Your task to perform on an android device: toggle show notifications on the lock screen Image 0: 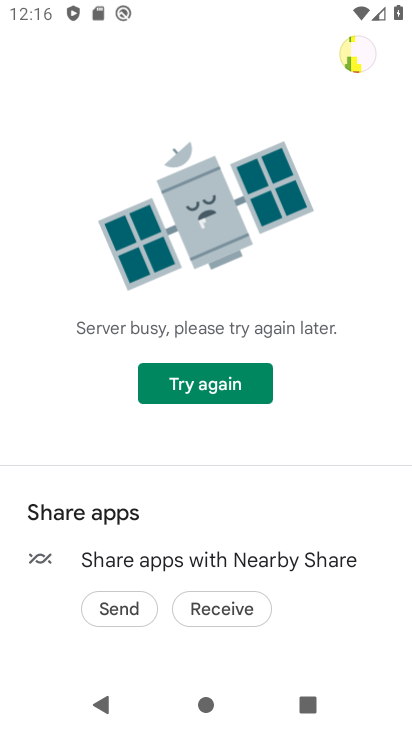
Step 0: press home button
Your task to perform on an android device: toggle show notifications on the lock screen Image 1: 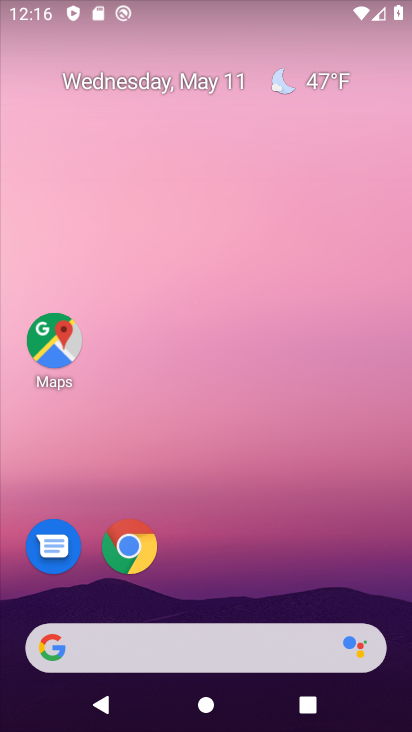
Step 1: drag from (211, 498) to (248, 94)
Your task to perform on an android device: toggle show notifications on the lock screen Image 2: 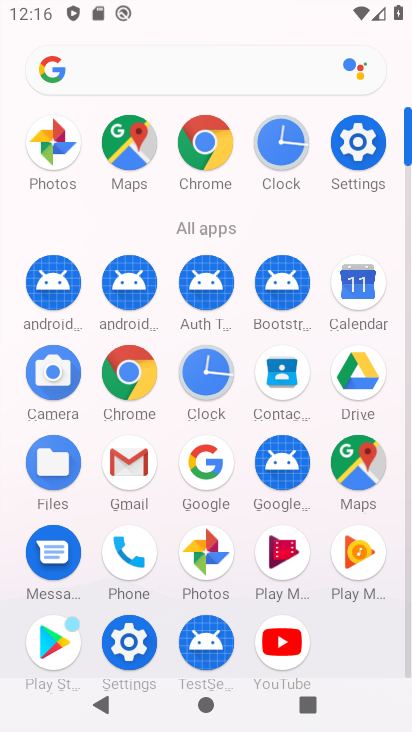
Step 2: click (354, 154)
Your task to perform on an android device: toggle show notifications on the lock screen Image 3: 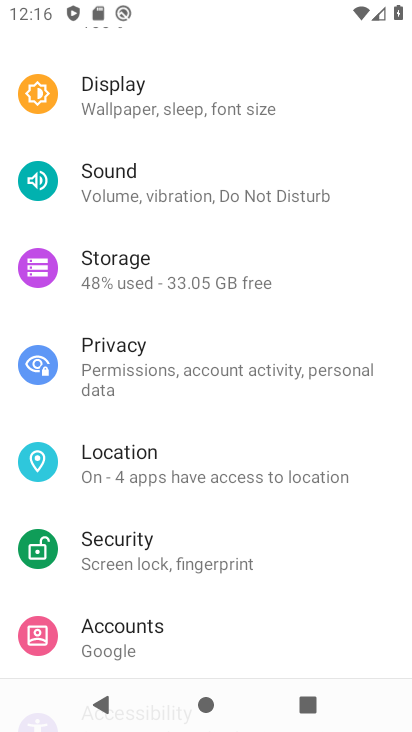
Step 3: drag from (197, 154) to (196, 606)
Your task to perform on an android device: toggle show notifications on the lock screen Image 4: 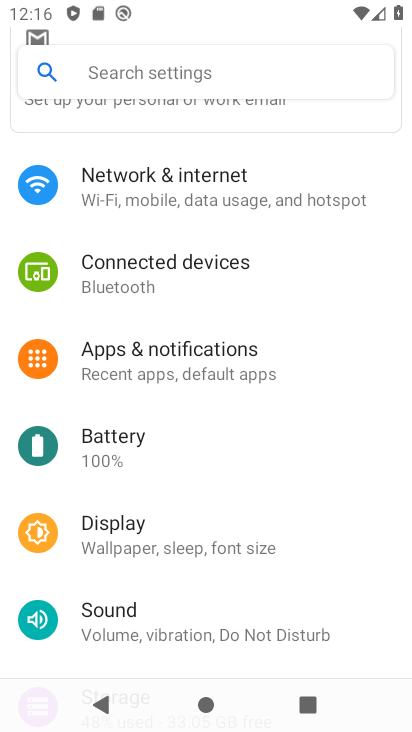
Step 4: click (198, 375)
Your task to perform on an android device: toggle show notifications on the lock screen Image 5: 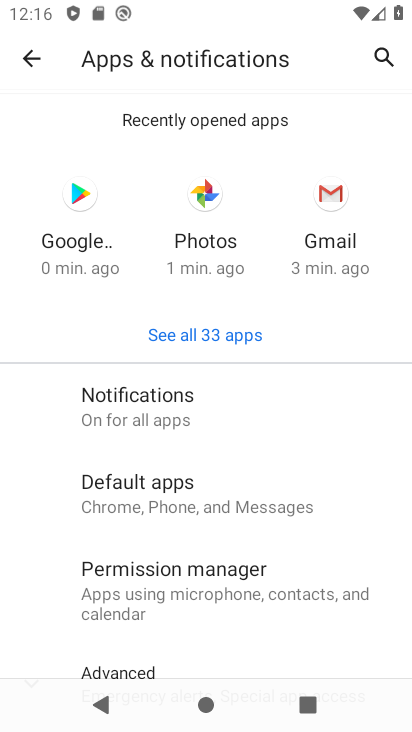
Step 5: click (193, 410)
Your task to perform on an android device: toggle show notifications on the lock screen Image 6: 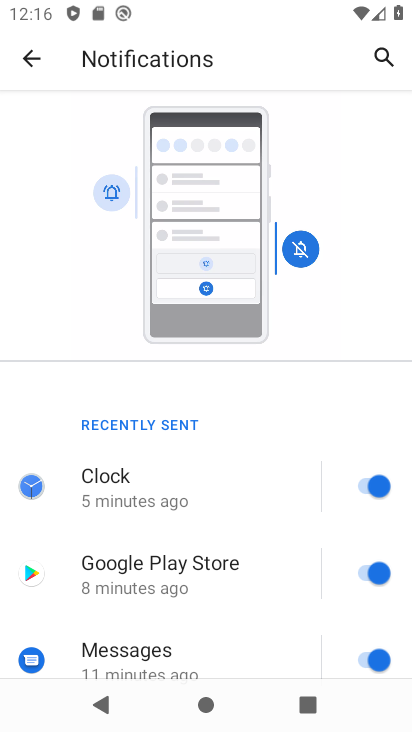
Step 6: drag from (193, 630) to (212, 334)
Your task to perform on an android device: toggle show notifications on the lock screen Image 7: 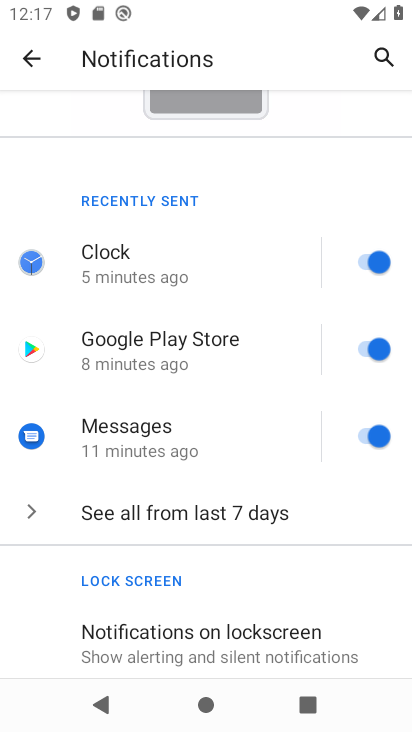
Step 7: click (218, 638)
Your task to perform on an android device: toggle show notifications on the lock screen Image 8: 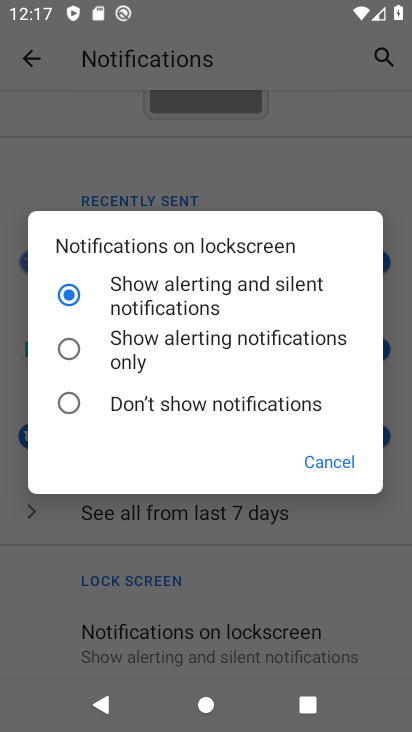
Step 8: click (67, 357)
Your task to perform on an android device: toggle show notifications on the lock screen Image 9: 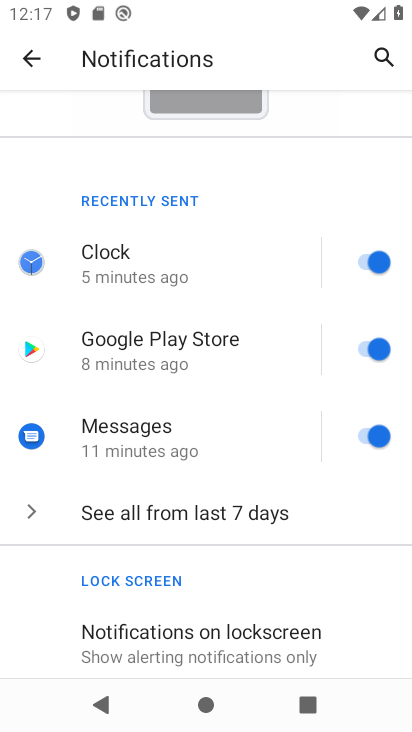
Step 9: task complete